Your task to perform on an android device: turn off notifications in google photos Image 0: 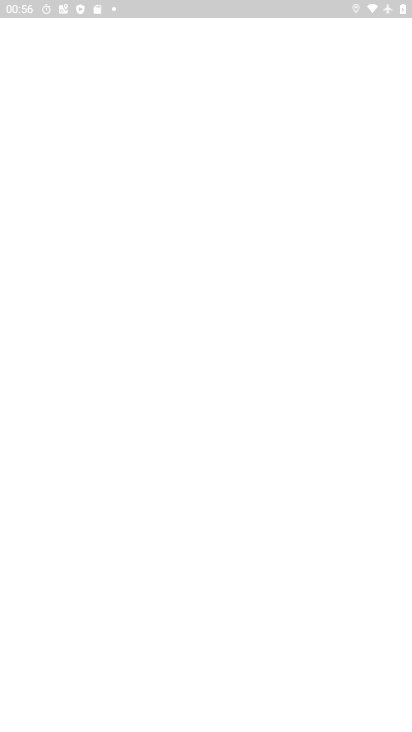
Step 0: press home button
Your task to perform on an android device: turn off notifications in google photos Image 1: 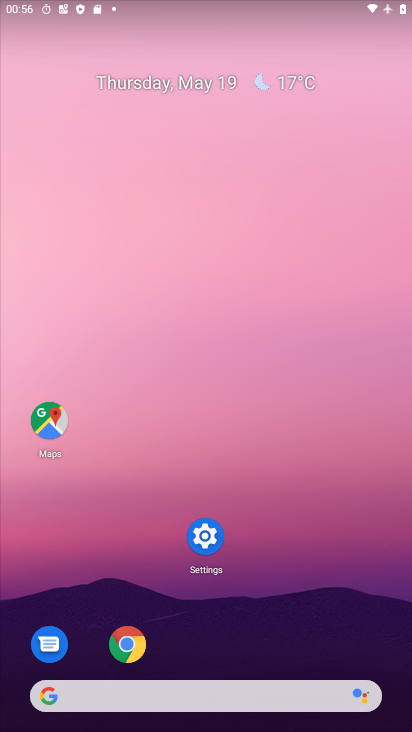
Step 1: drag from (274, 583) to (303, 71)
Your task to perform on an android device: turn off notifications in google photos Image 2: 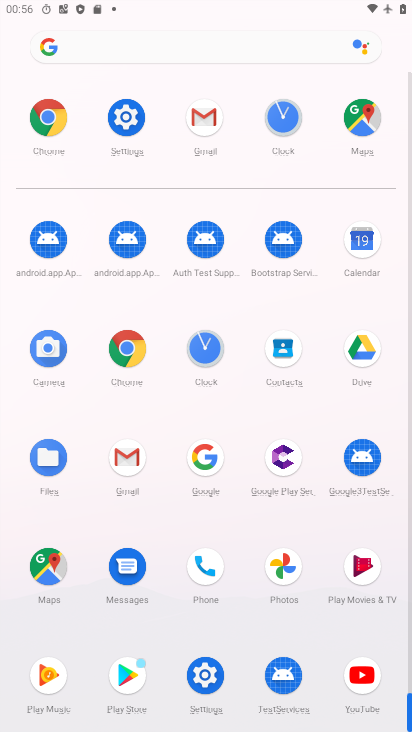
Step 2: click (284, 565)
Your task to perform on an android device: turn off notifications in google photos Image 3: 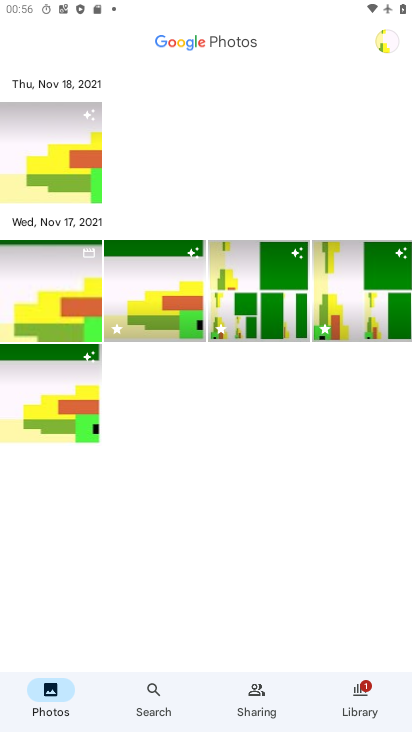
Step 3: click (348, 34)
Your task to perform on an android device: turn off notifications in google photos Image 4: 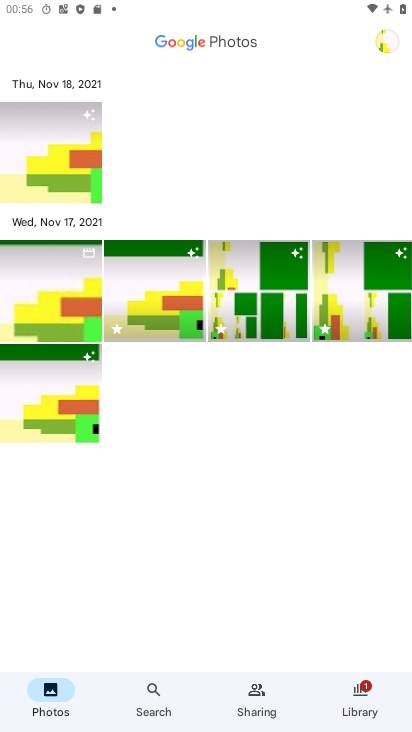
Step 4: click (383, 35)
Your task to perform on an android device: turn off notifications in google photos Image 5: 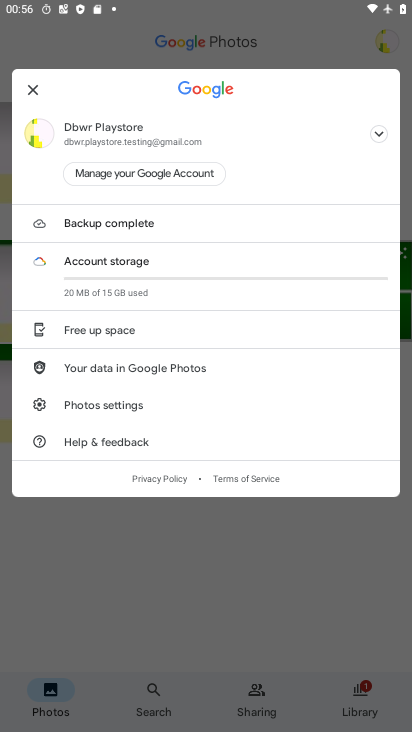
Step 5: click (123, 404)
Your task to perform on an android device: turn off notifications in google photos Image 6: 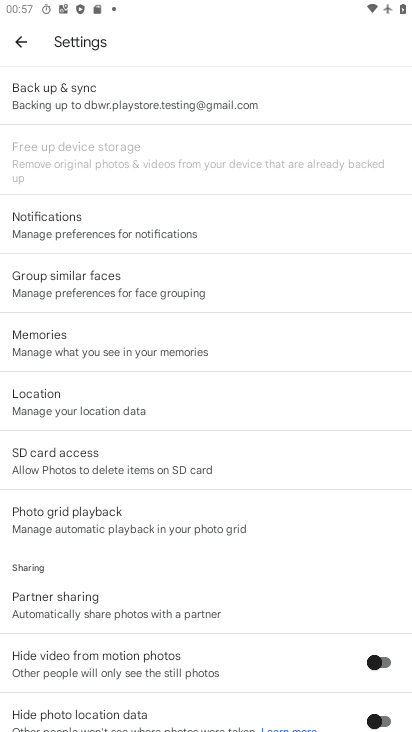
Step 6: click (110, 232)
Your task to perform on an android device: turn off notifications in google photos Image 7: 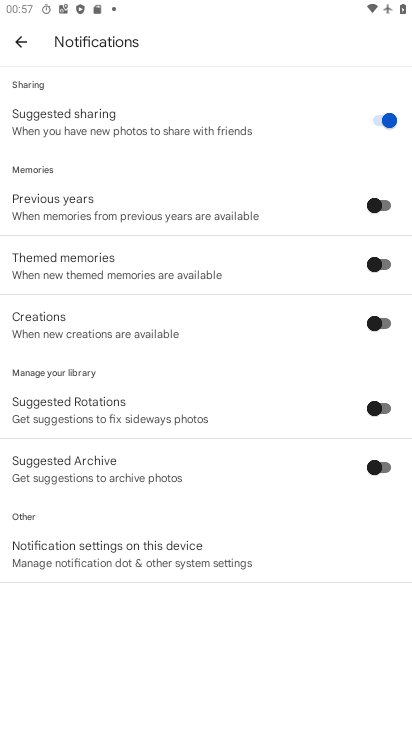
Step 7: click (17, 45)
Your task to perform on an android device: turn off notifications in google photos Image 8: 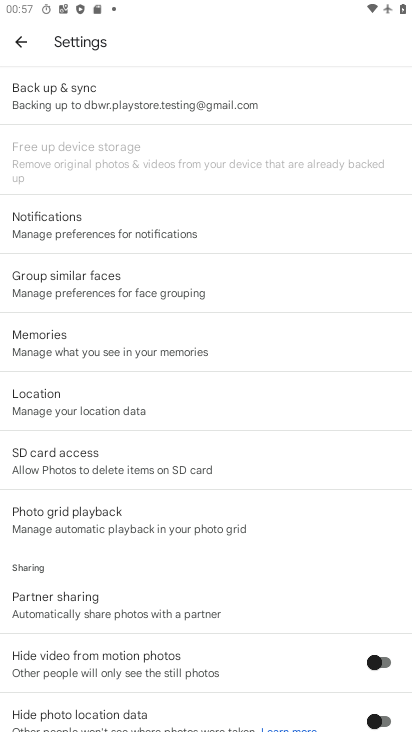
Step 8: click (112, 230)
Your task to perform on an android device: turn off notifications in google photos Image 9: 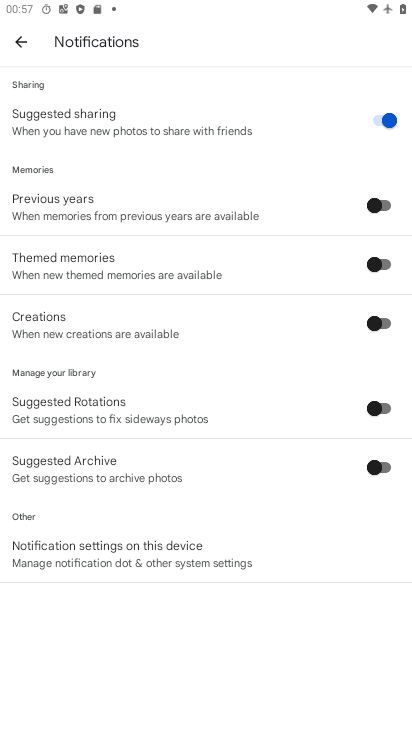
Step 9: click (166, 540)
Your task to perform on an android device: turn off notifications in google photos Image 10: 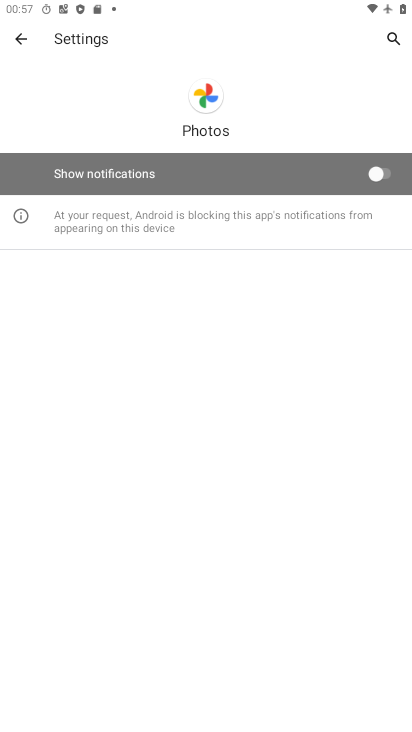
Step 10: task complete